Your task to perform on an android device: turn off wifi Image 0: 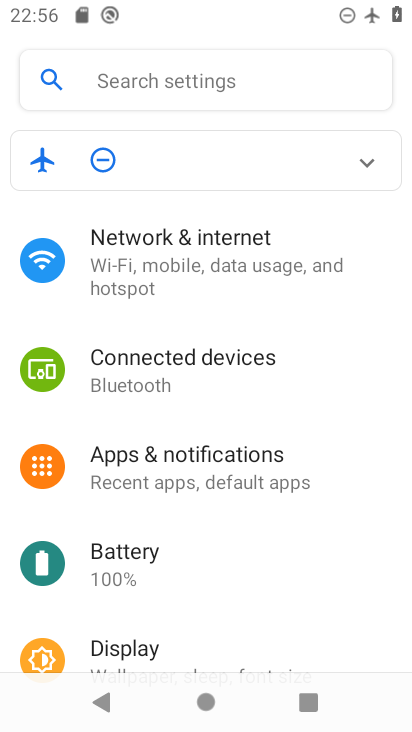
Step 0: click (250, 235)
Your task to perform on an android device: turn off wifi Image 1: 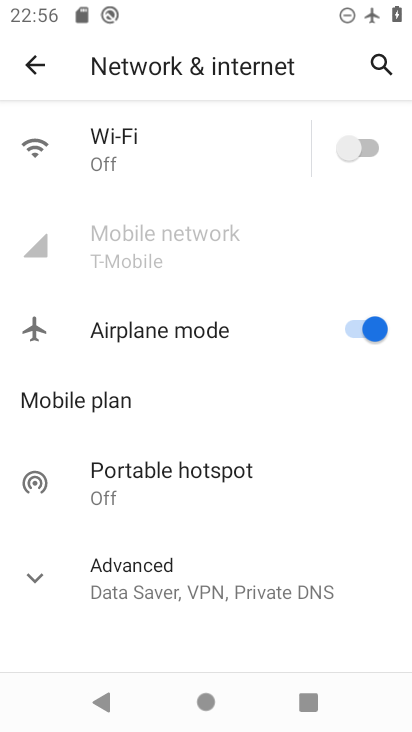
Step 1: task complete